Your task to perform on an android device: Toggle the flashlight Image 0: 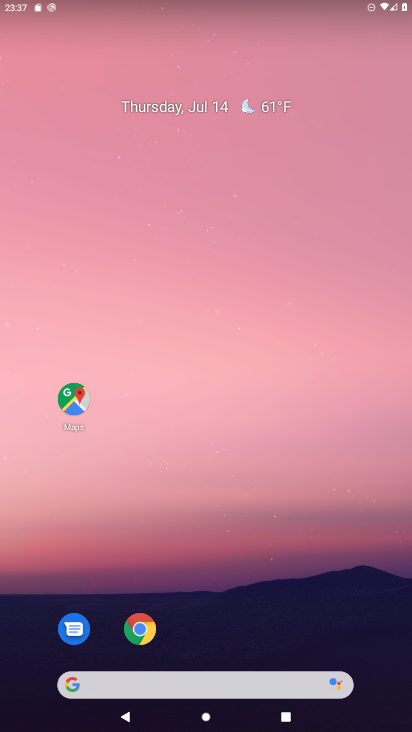
Step 0: drag from (191, 638) to (203, 3)
Your task to perform on an android device: Toggle the flashlight Image 1: 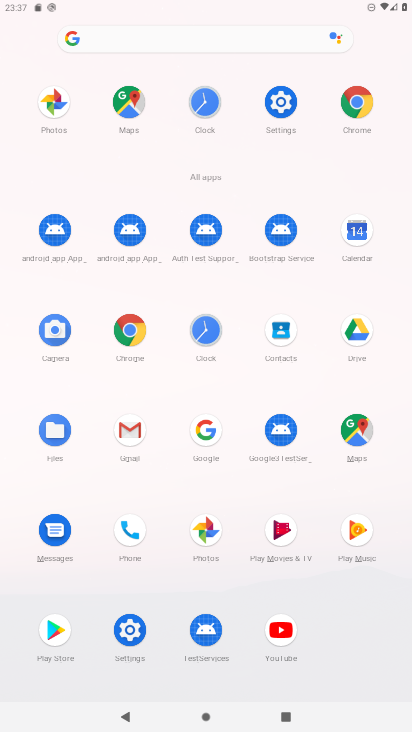
Step 1: click (276, 99)
Your task to perform on an android device: Toggle the flashlight Image 2: 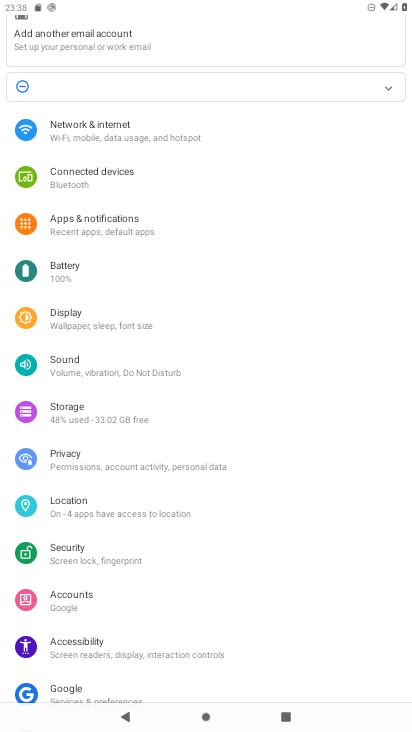
Step 2: task complete